Your task to perform on an android device: Go to Yahoo.com Image 0: 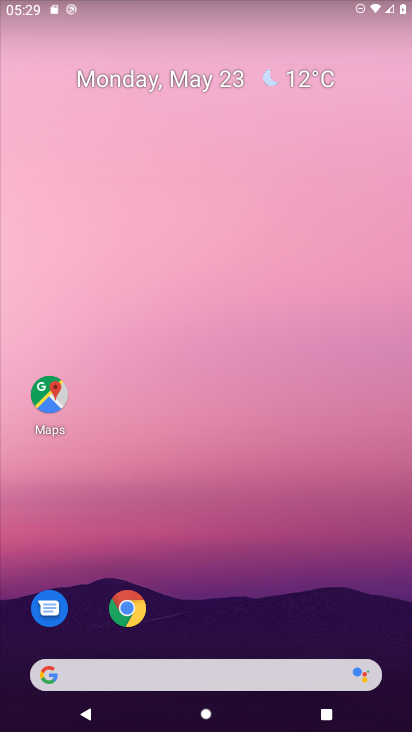
Step 0: drag from (267, 175) to (178, 11)
Your task to perform on an android device: Go to Yahoo.com Image 1: 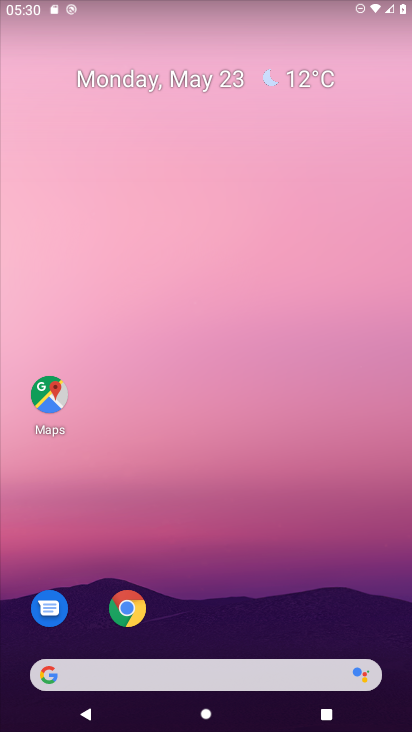
Step 1: click (143, 609)
Your task to perform on an android device: Go to Yahoo.com Image 2: 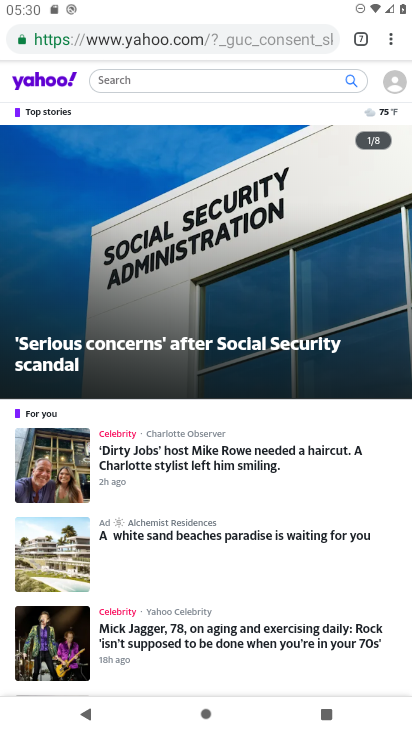
Step 2: task complete